Your task to perform on an android device: Open the map Image 0: 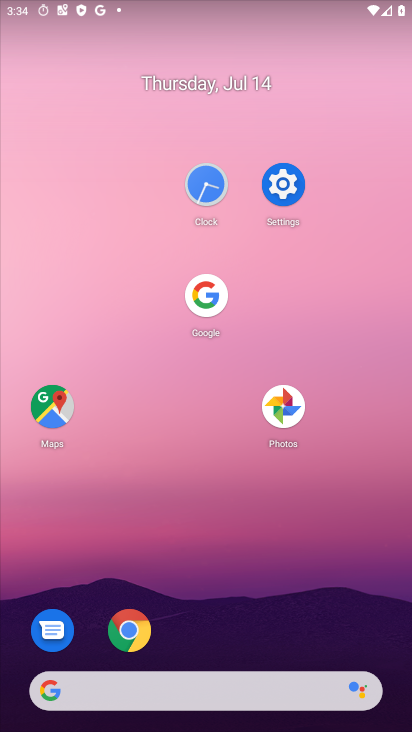
Step 0: click (38, 405)
Your task to perform on an android device: Open the map Image 1: 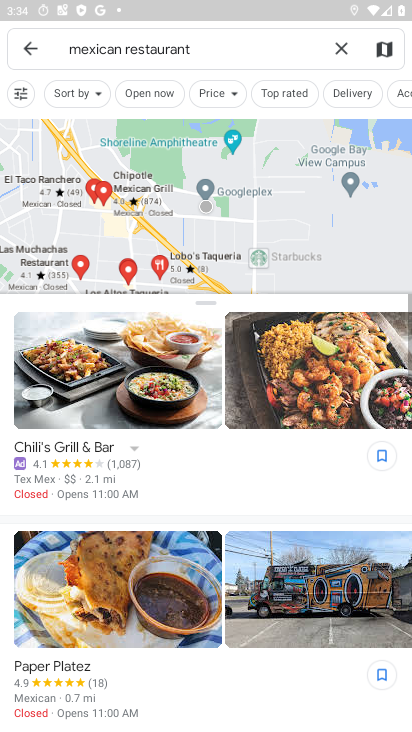
Step 1: task complete